Your task to perform on an android device: manage bookmarks in the chrome app Image 0: 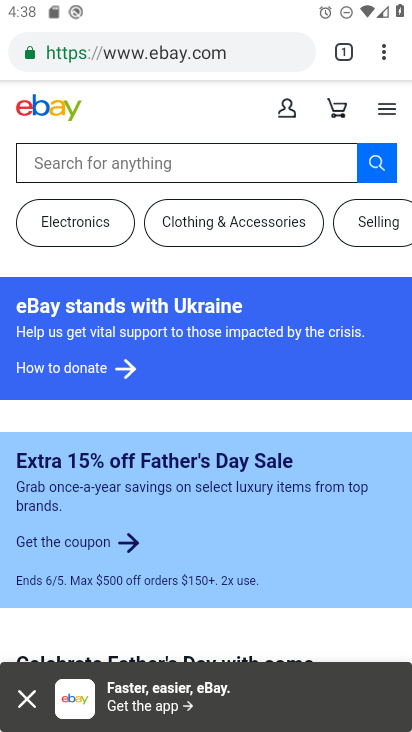
Step 0: click (382, 50)
Your task to perform on an android device: manage bookmarks in the chrome app Image 1: 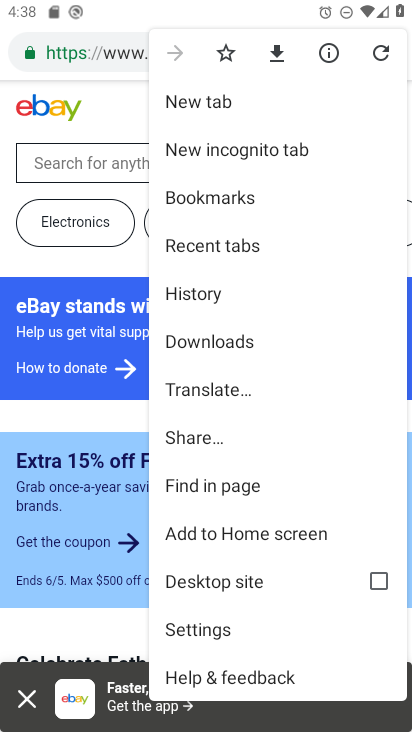
Step 1: click (260, 196)
Your task to perform on an android device: manage bookmarks in the chrome app Image 2: 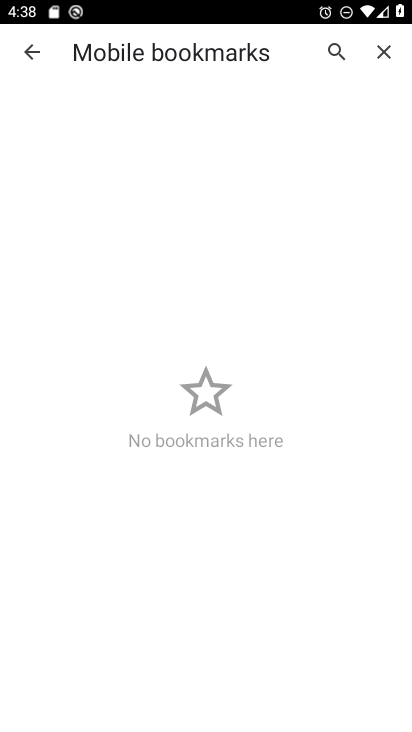
Step 2: task complete